Your task to perform on an android device: turn on priority inbox in the gmail app Image 0: 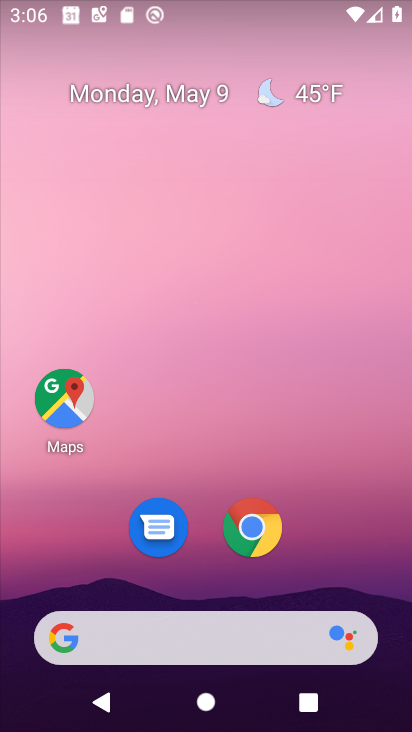
Step 0: drag from (197, 666) to (276, 217)
Your task to perform on an android device: turn on priority inbox in the gmail app Image 1: 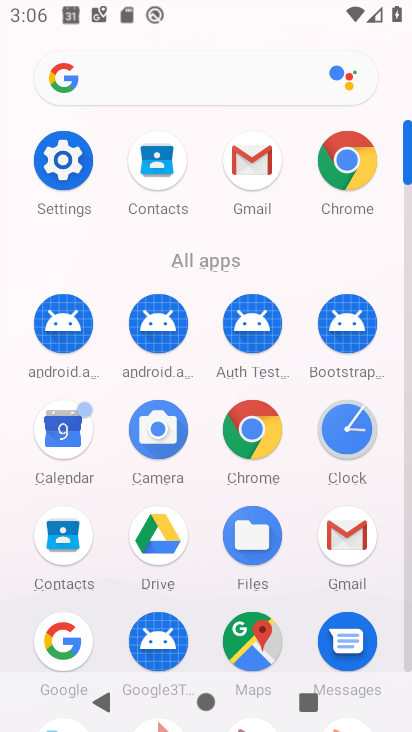
Step 1: click (338, 544)
Your task to perform on an android device: turn on priority inbox in the gmail app Image 2: 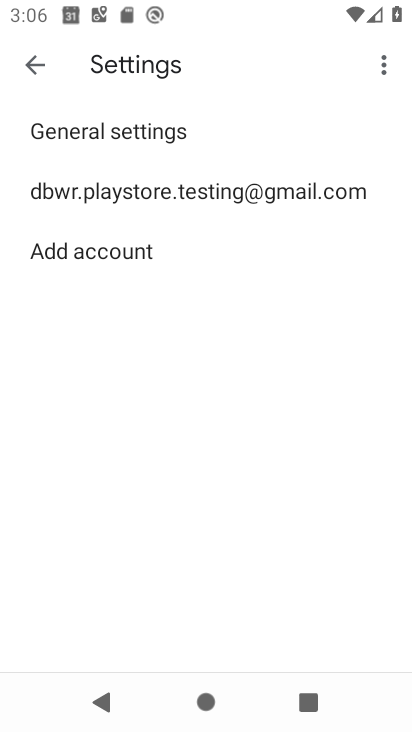
Step 2: click (241, 184)
Your task to perform on an android device: turn on priority inbox in the gmail app Image 3: 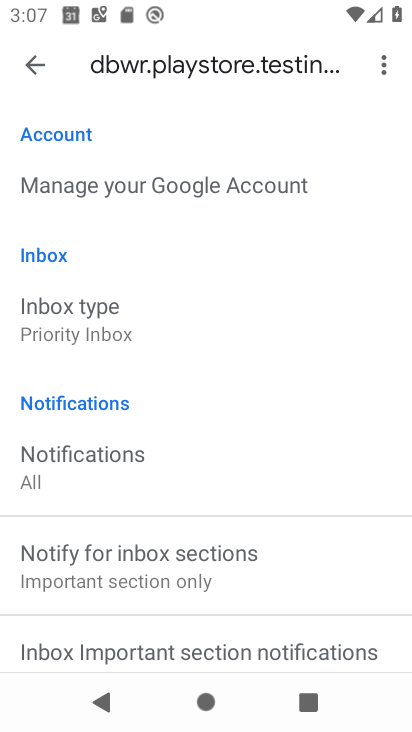
Step 3: click (147, 328)
Your task to perform on an android device: turn on priority inbox in the gmail app Image 4: 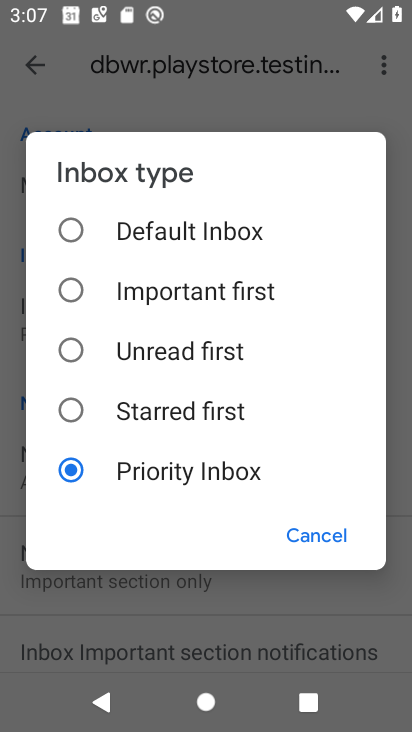
Step 4: task complete